Your task to perform on an android device: What's the latest video from Gameranx? Image 0: 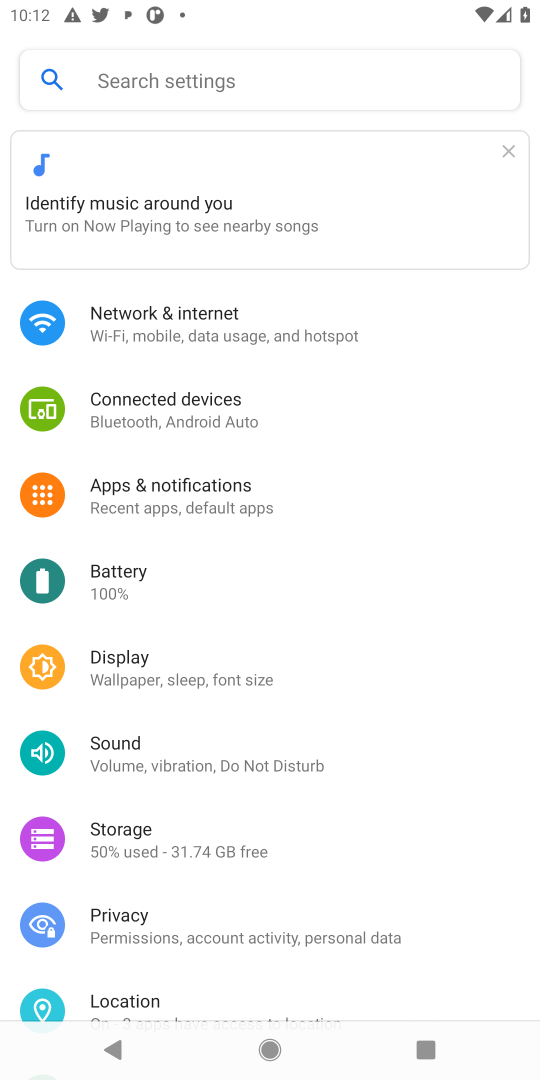
Step 0: press home button
Your task to perform on an android device: What's the latest video from Gameranx? Image 1: 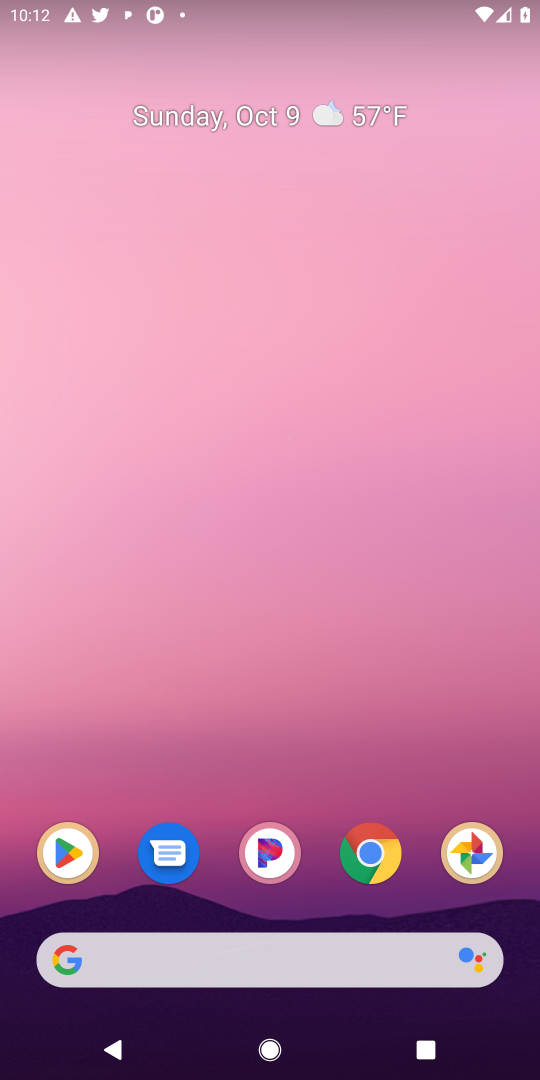
Step 1: click (363, 856)
Your task to perform on an android device: What's the latest video from Gameranx? Image 2: 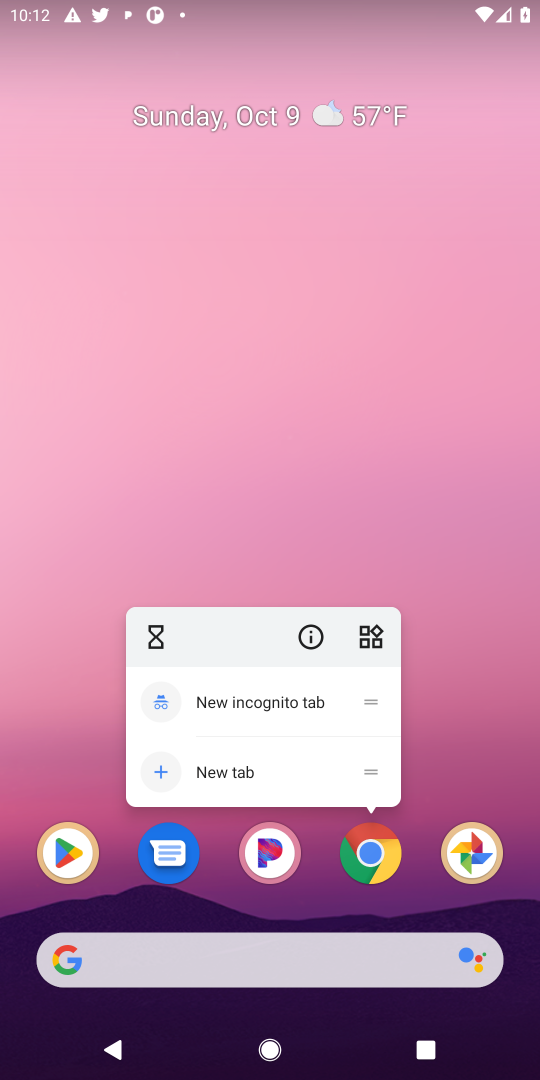
Step 2: click (337, 965)
Your task to perform on an android device: What's the latest video from Gameranx? Image 3: 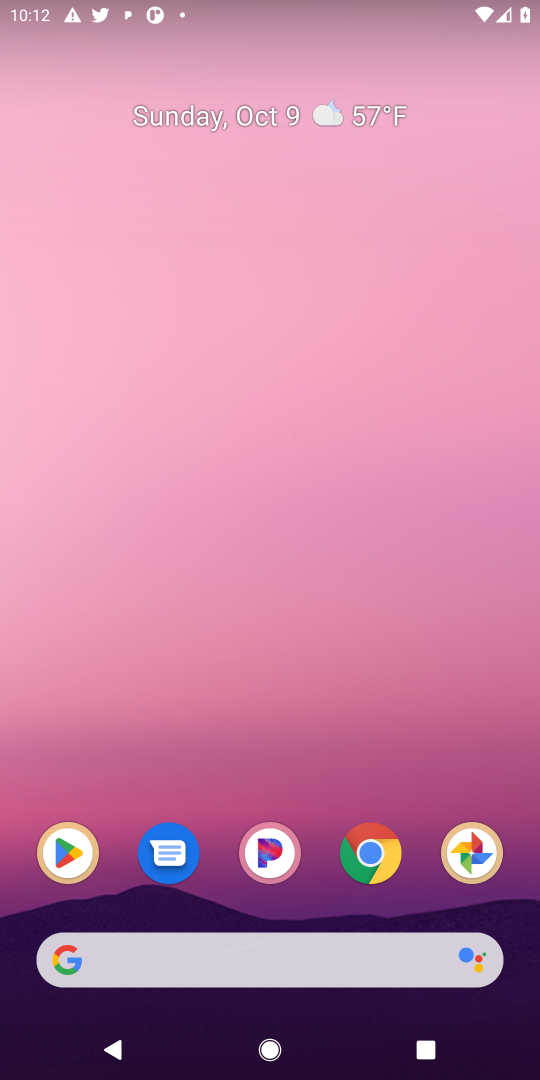
Step 3: click (337, 965)
Your task to perform on an android device: What's the latest video from Gameranx? Image 4: 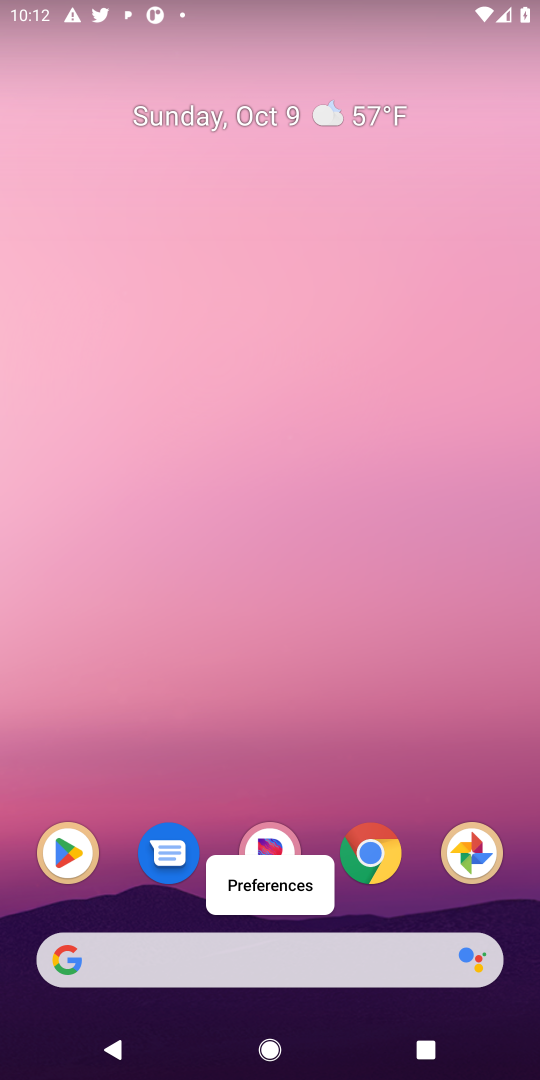
Step 4: click (192, 969)
Your task to perform on an android device: What's the latest video from Gameranx? Image 5: 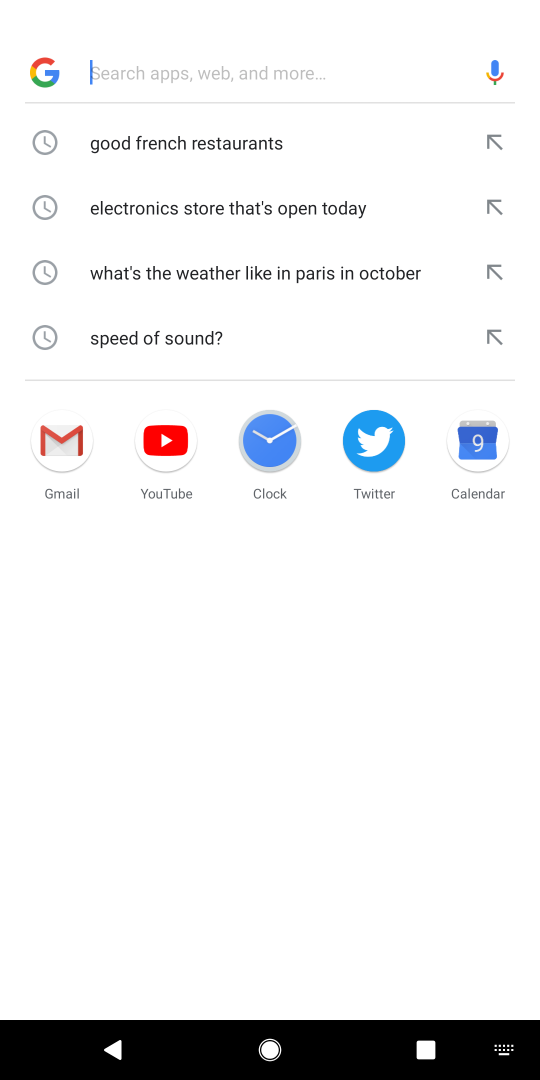
Step 5: type "What's the latest video from Gameranx?"
Your task to perform on an android device: What's the latest video from Gameranx? Image 6: 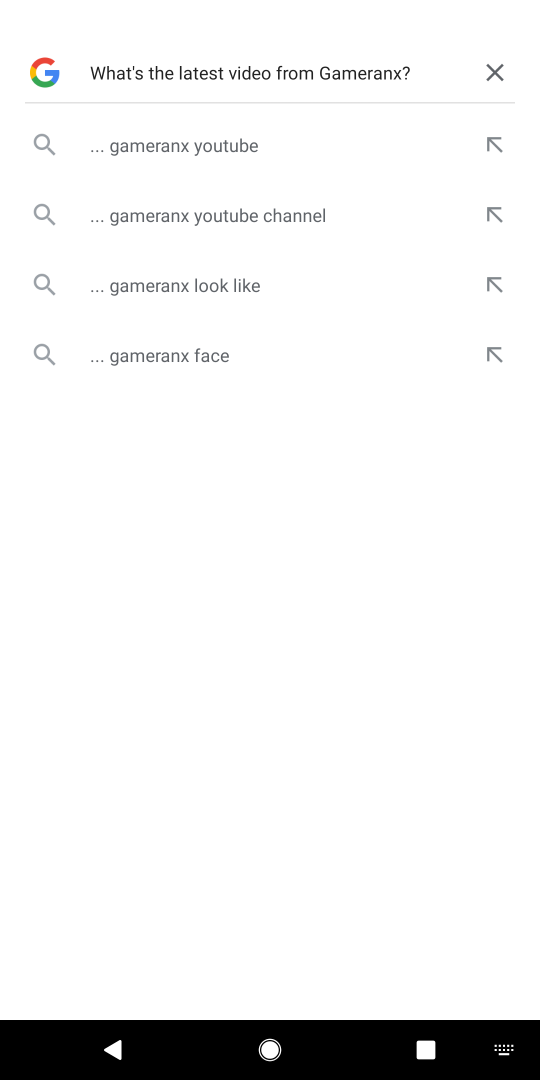
Step 6: type ""
Your task to perform on an android device: What's the latest video from Gameranx? Image 7: 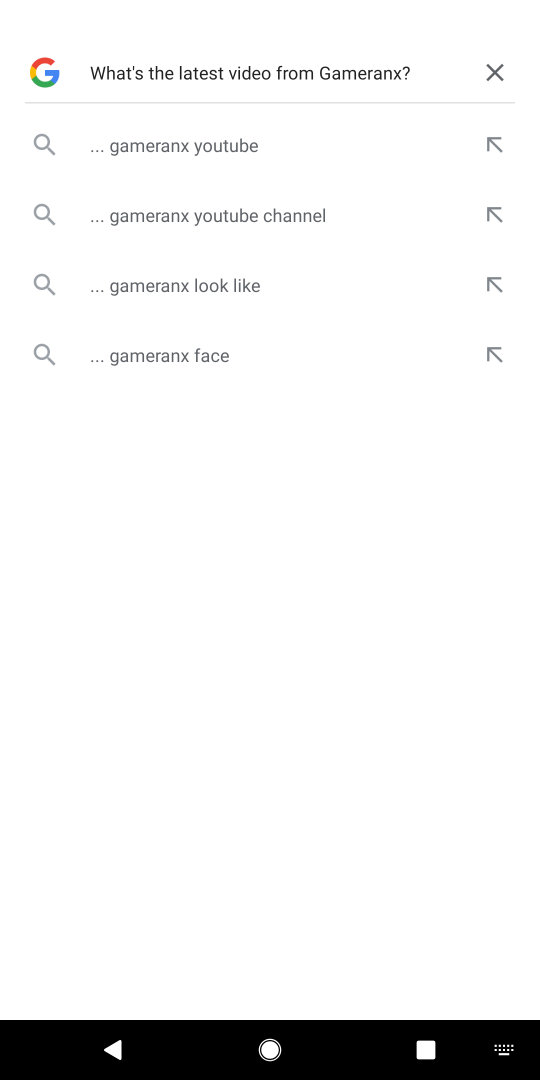
Step 7: press enter
Your task to perform on an android device: What's the latest video from Gameranx? Image 8: 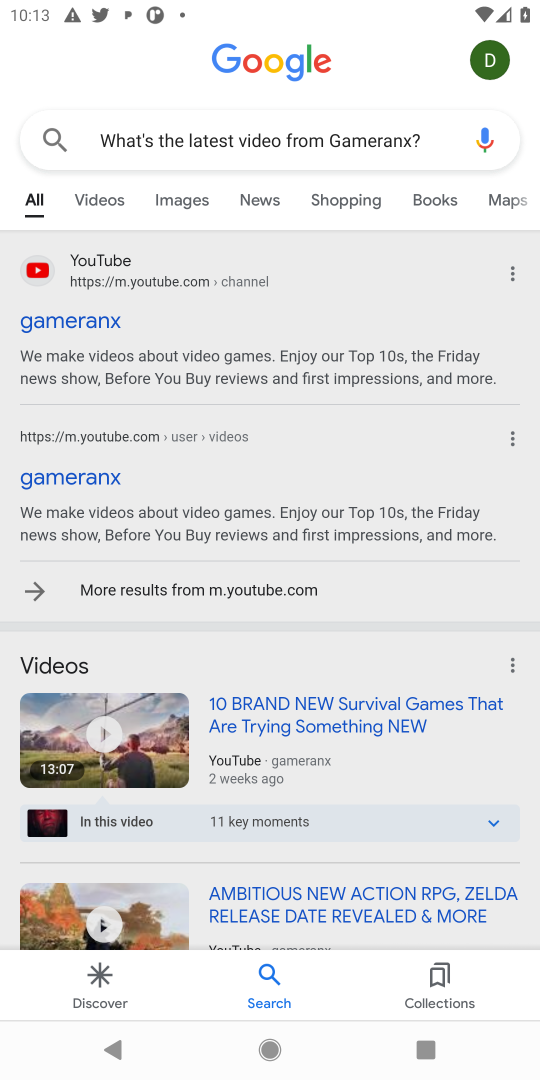
Step 8: click (75, 325)
Your task to perform on an android device: What's the latest video from Gameranx? Image 9: 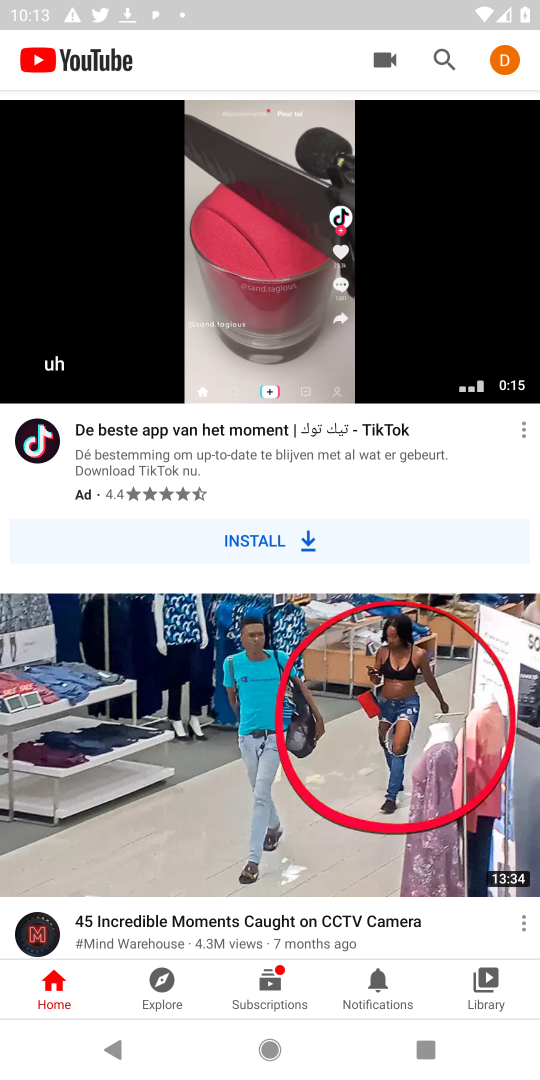
Step 9: drag from (237, 656) to (330, 92)
Your task to perform on an android device: What's the latest video from Gameranx? Image 10: 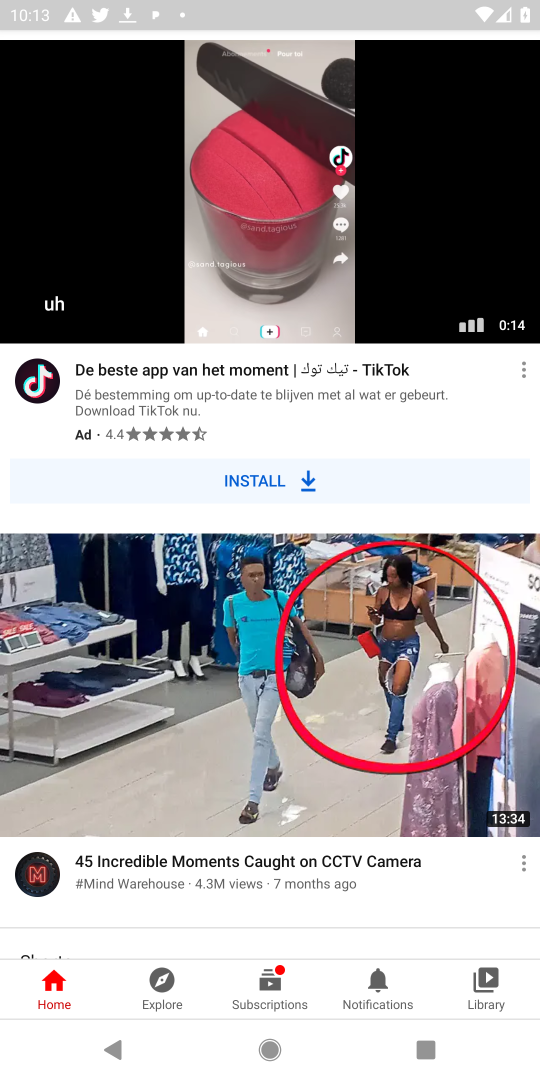
Step 10: drag from (337, 509) to (371, 203)
Your task to perform on an android device: What's the latest video from Gameranx? Image 11: 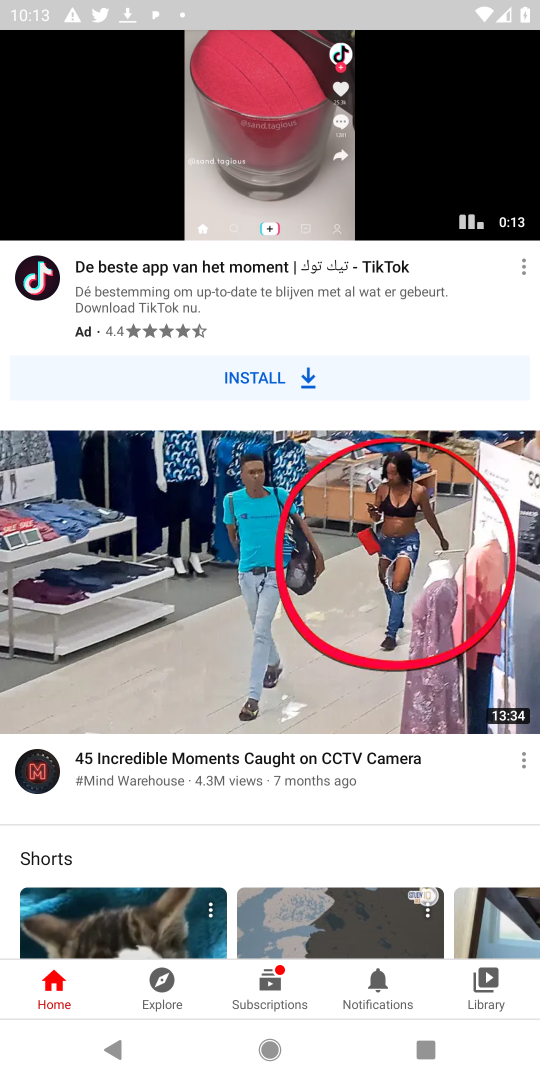
Step 11: drag from (354, 643) to (362, 166)
Your task to perform on an android device: What's the latest video from Gameranx? Image 12: 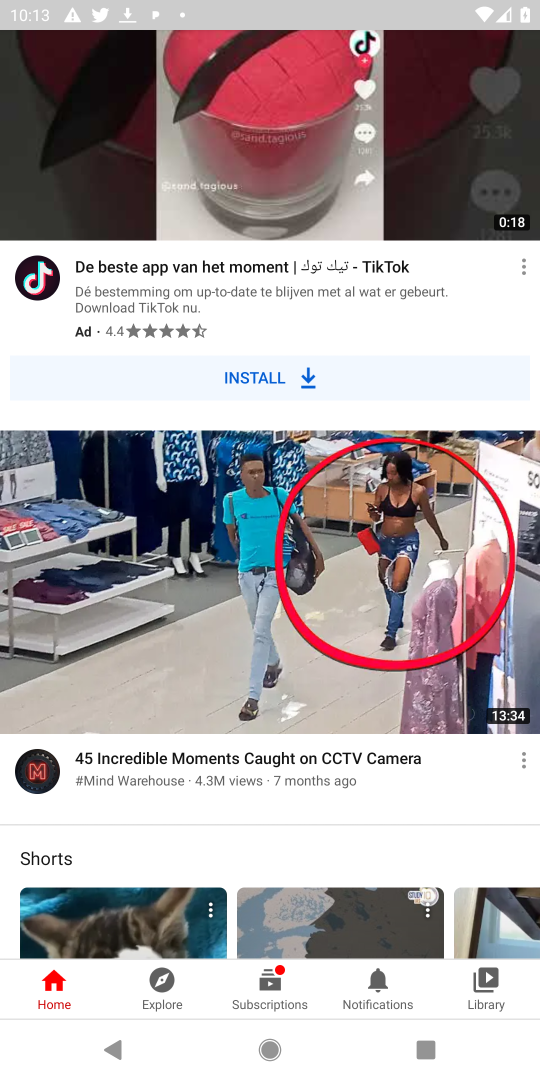
Step 12: drag from (378, 340) to (412, 132)
Your task to perform on an android device: What's the latest video from Gameranx? Image 13: 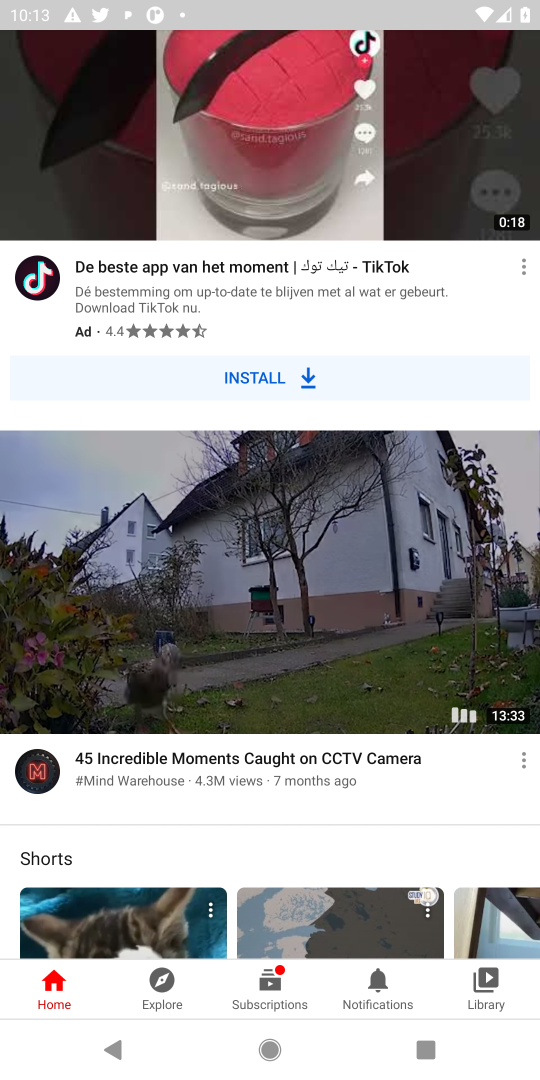
Step 13: press back button
Your task to perform on an android device: What's the latest video from Gameranx? Image 14: 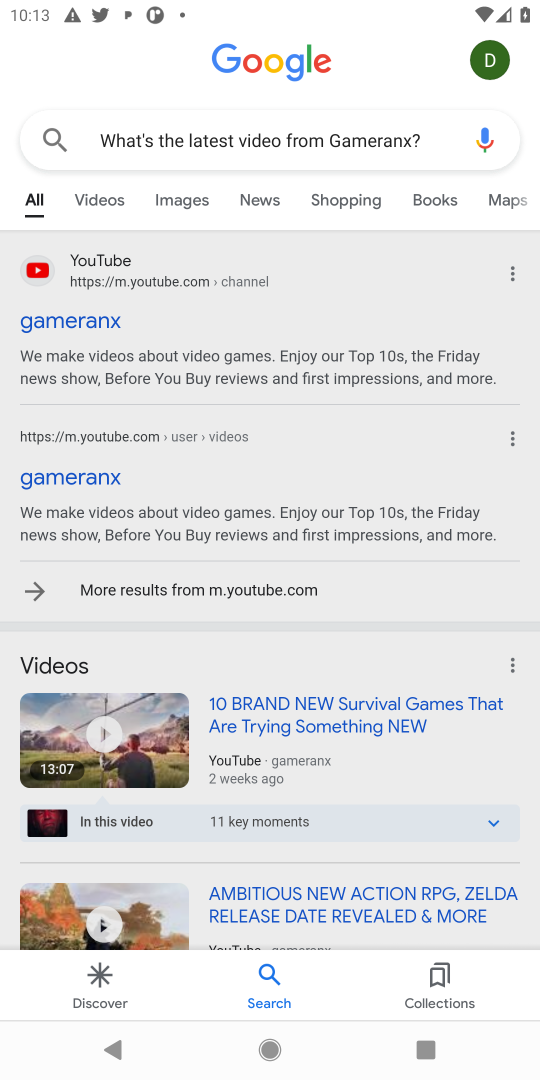
Step 14: click (96, 484)
Your task to perform on an android device: What's the latest video from Gameranx? Image 15: 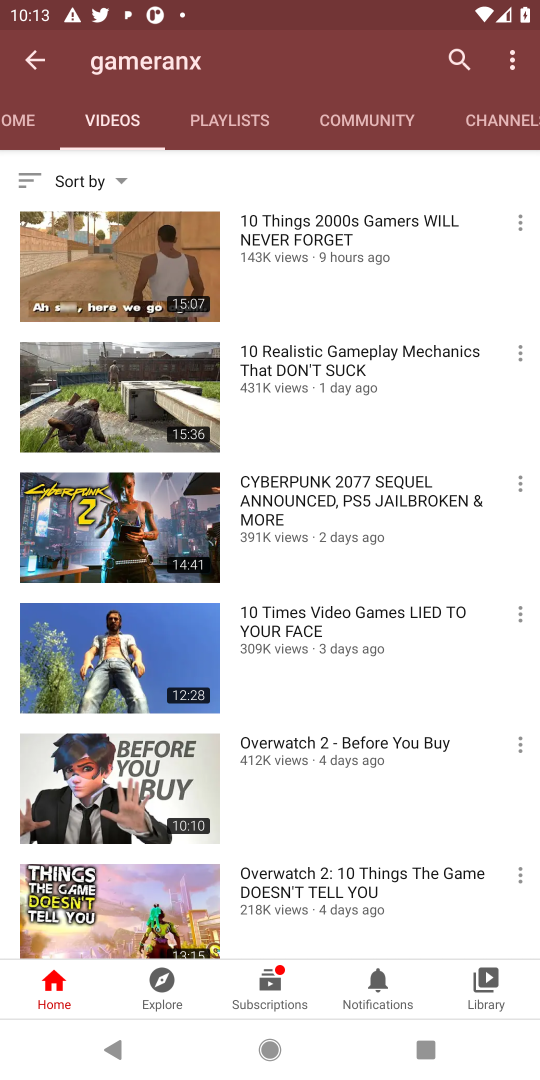
Step 15: click (352, 221)
Your task to perform on an android device: What's the latest video from Gameranx? Image 16: 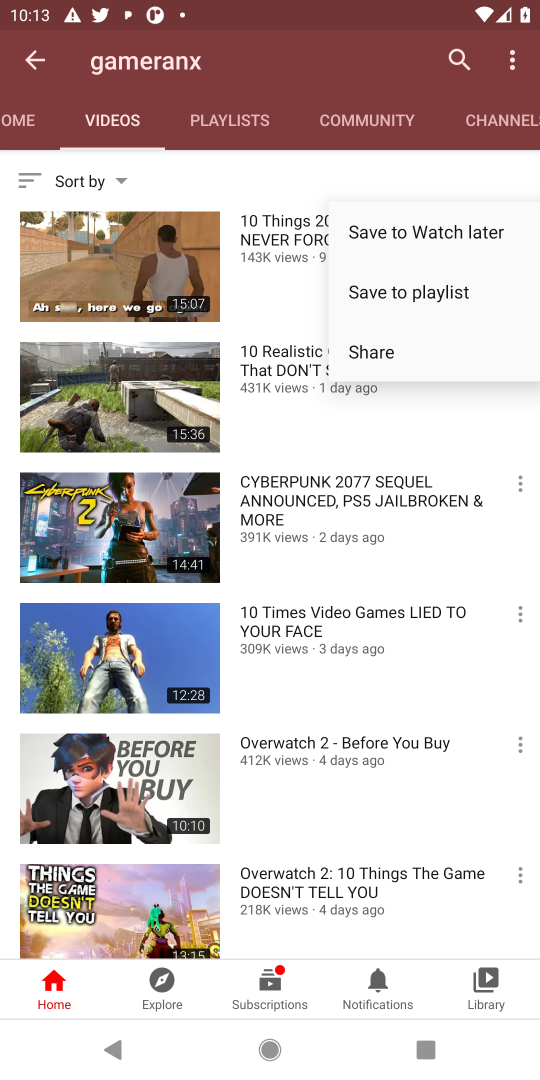
Step 16: click (114, 239)
Your task to perform on an android device: What's the latest video from Gameranx? Image 17: 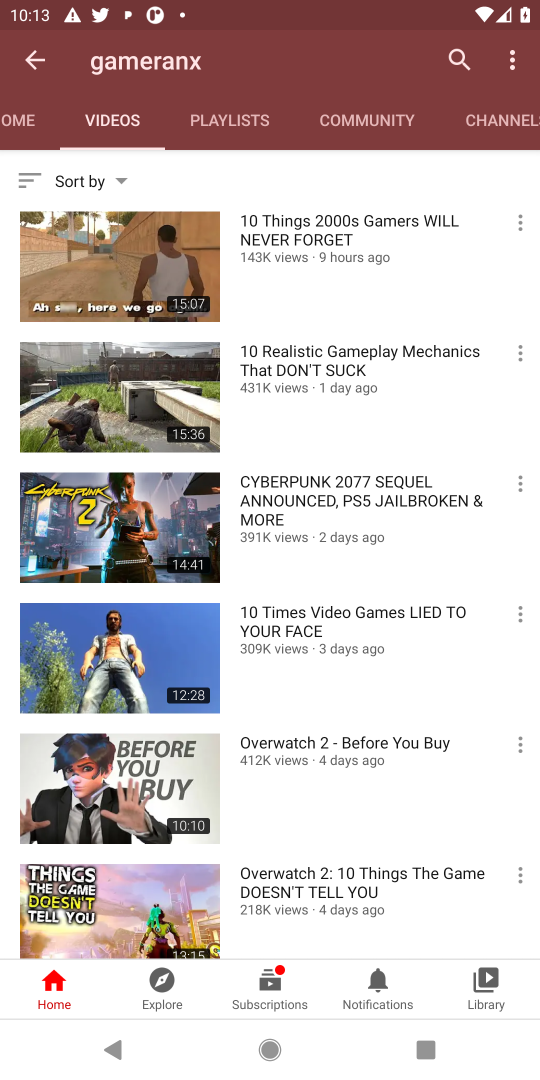
Step 17: click (114, 239)
Your task to perform on an android device: What's the latest video from Gameranx? Image 18: 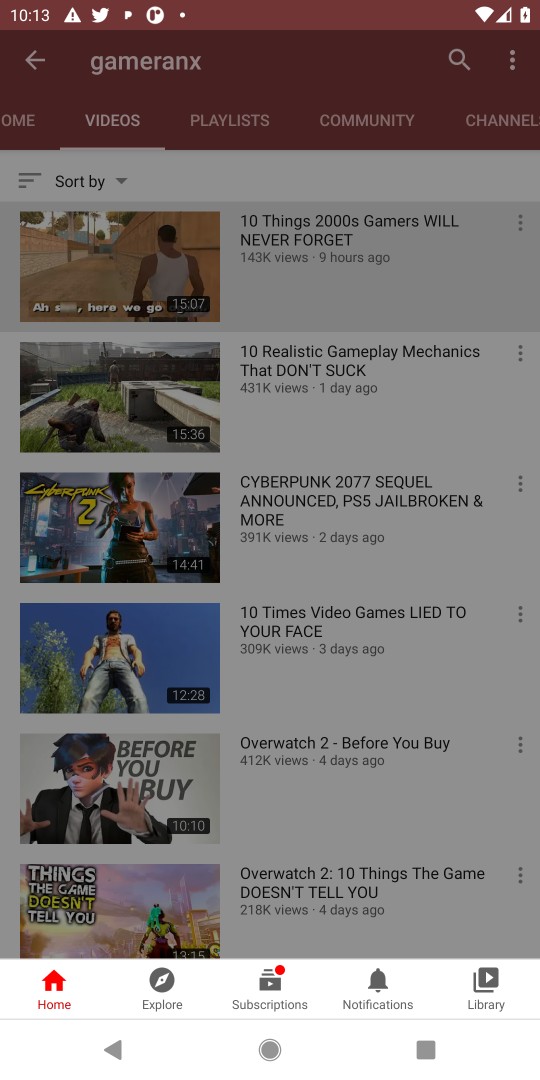
Step 18: click (320, 214)
Your task to perform on an android device: What's the latest video from Gameranx? Image 19: 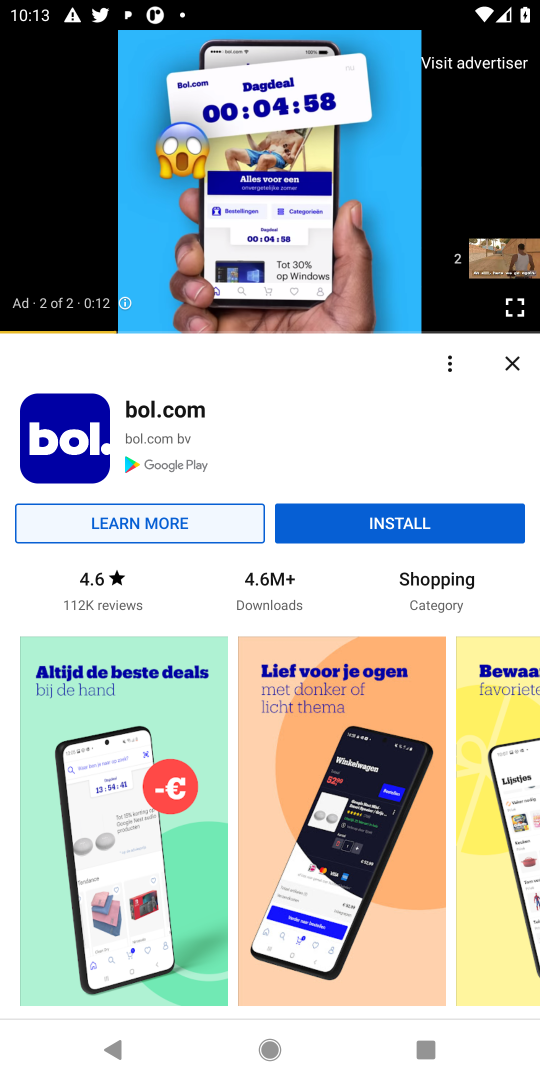
Step 19: click (515, 357)
Your task to perform on an android device: What's the latest video from Gameranx? Image 20: 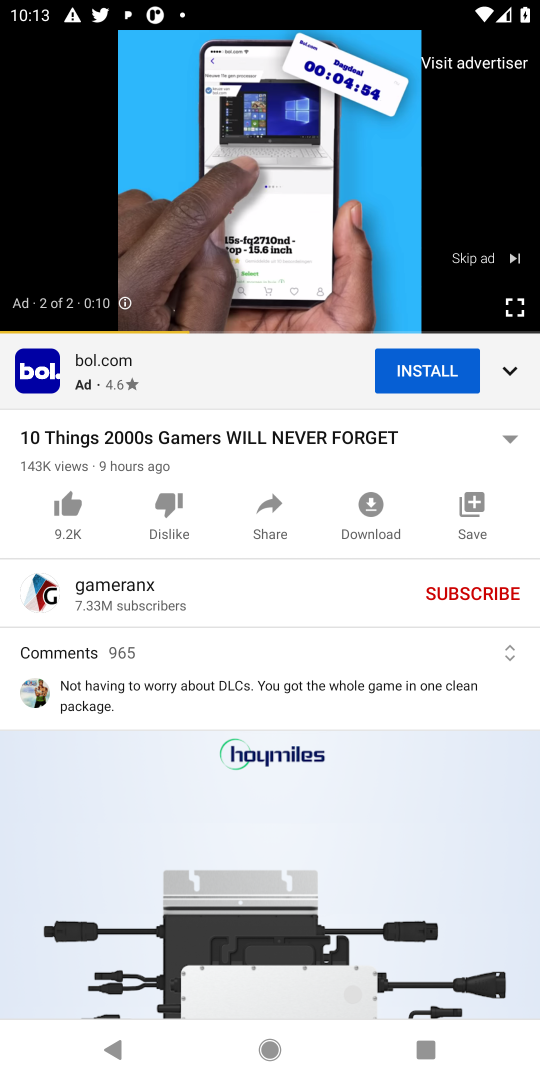
Step 20: drag from (374, 706) to (382, 209)
Your task to perform on an android device: What's the latest video from Gameranx? Image 21: 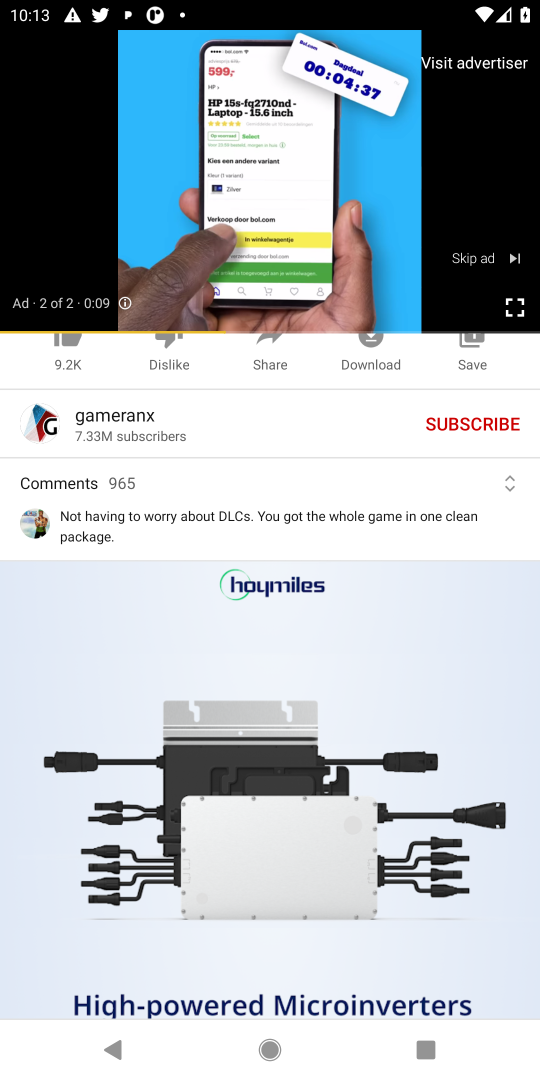
Step 21: drag from (321, 742) to (381, 301)
Your task to perform on an android device: What's the latest video from Gameranx? Image 22: 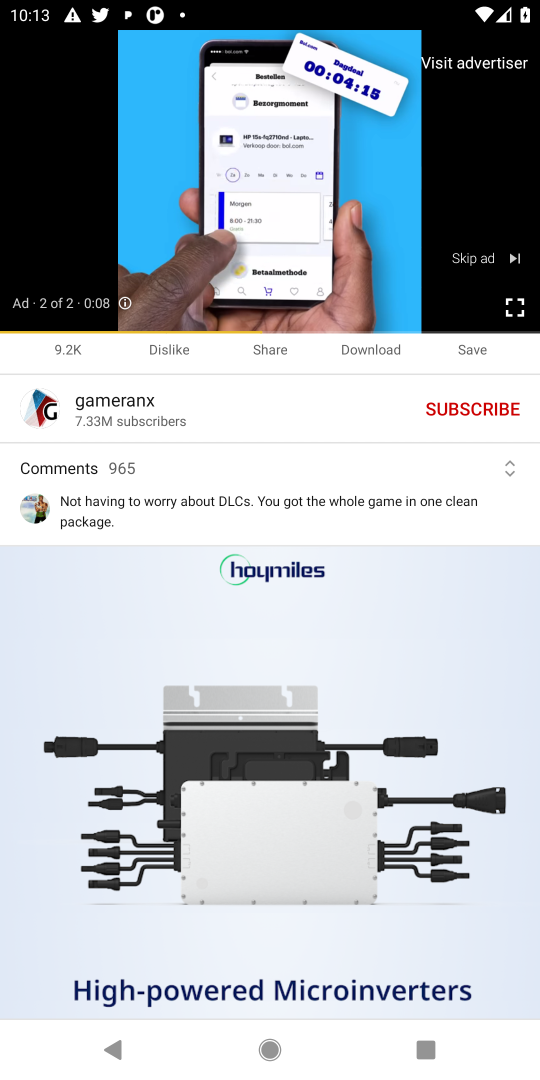
Step 22: click (460, 254)
Your task to perform on an android device: What's the latest video from Gameranx? Image 23: 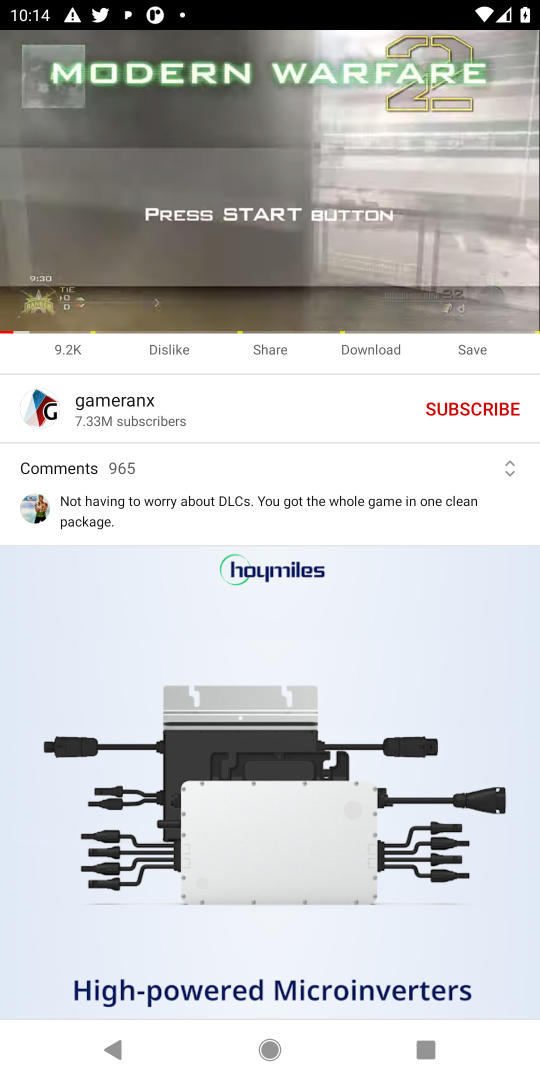
Step 23: drag from (415, 516) to (417, 290)
Your task to perform on an android device: What's the latest video from Gameranx? Image 24: 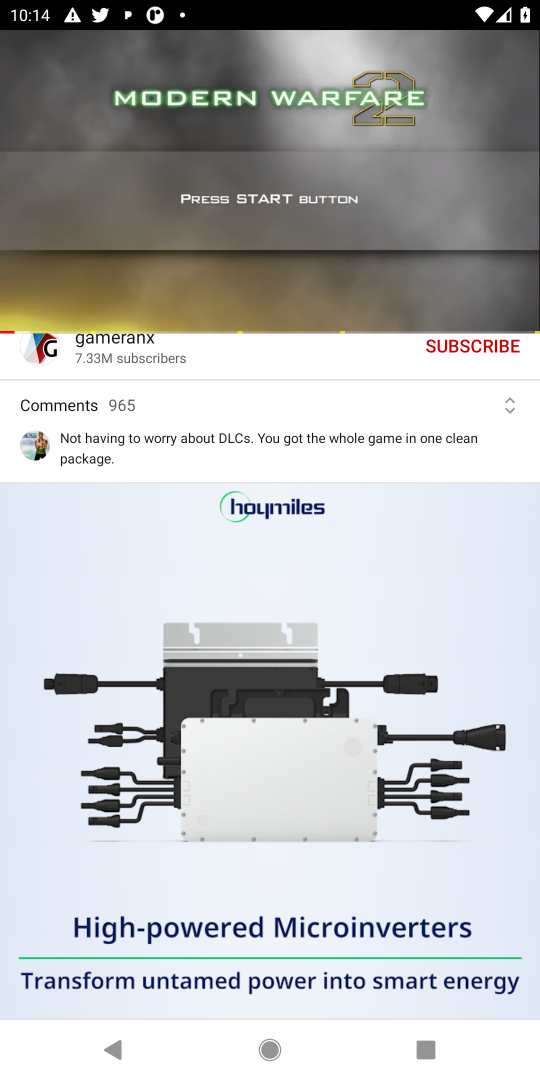
Step 24: drag from (356, 516) to (379, 384)
Your task to perform on an android device: What's the latest video from Gameranx? Image 25: 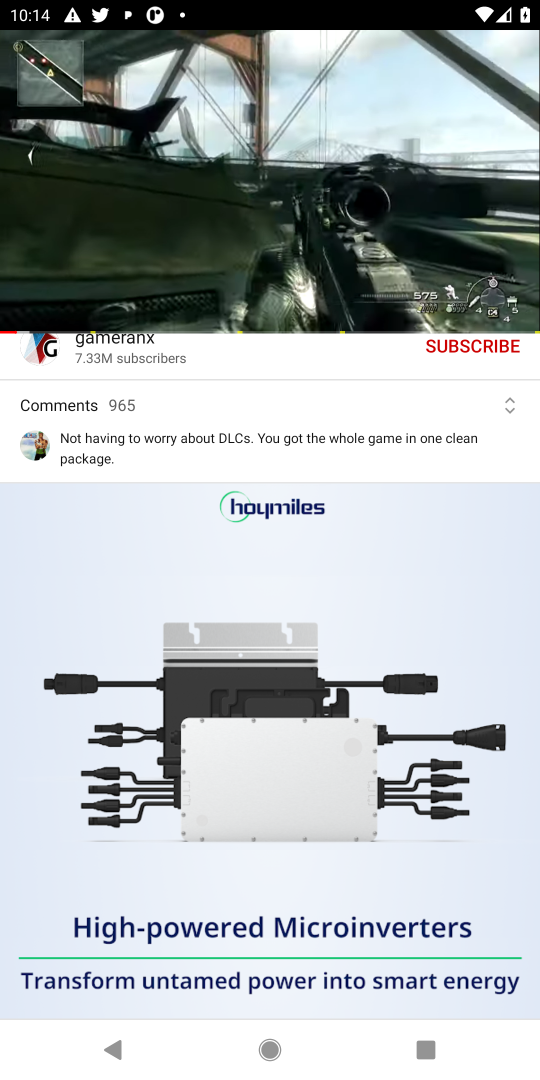
Step 25: drag from (364, 627) to (366, 318)
Your task to perform on an android device: What's the latest video from Gameranx? Image 26: 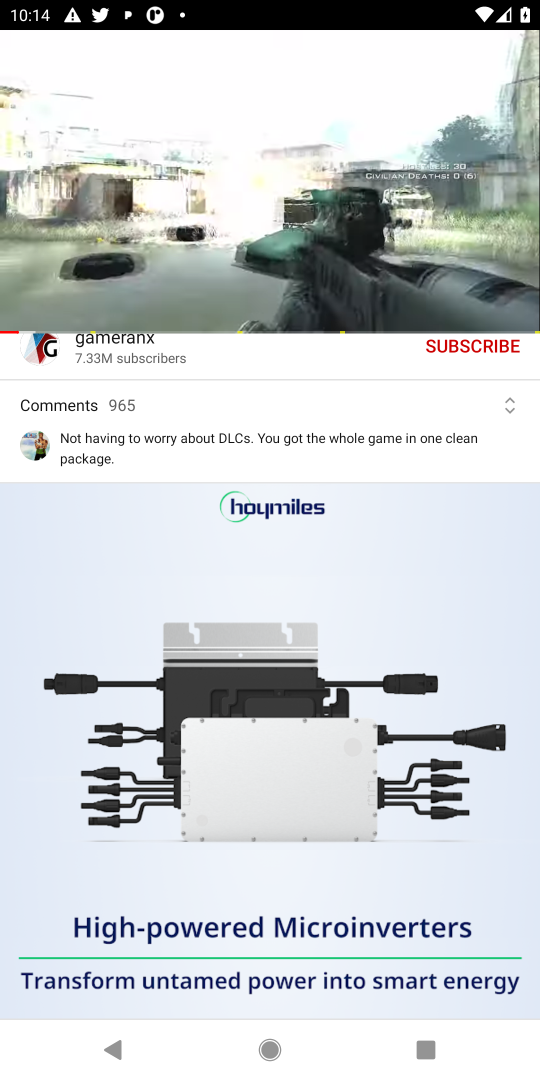
Step 26: drag from (359, 271) to (357, 171)
Your task to perform on an android device: What's the latest video from Gameranx? Image 27: 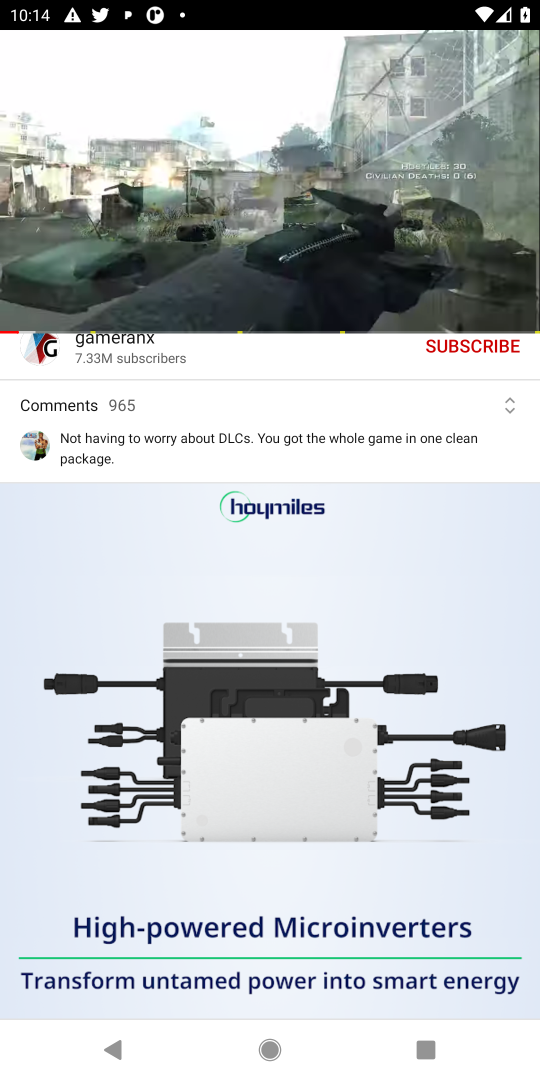
Step 27: drag from (338, 495) to (344, 239)
Your task to perform on an android device: What's the latest video from Gameranx? Image 28: 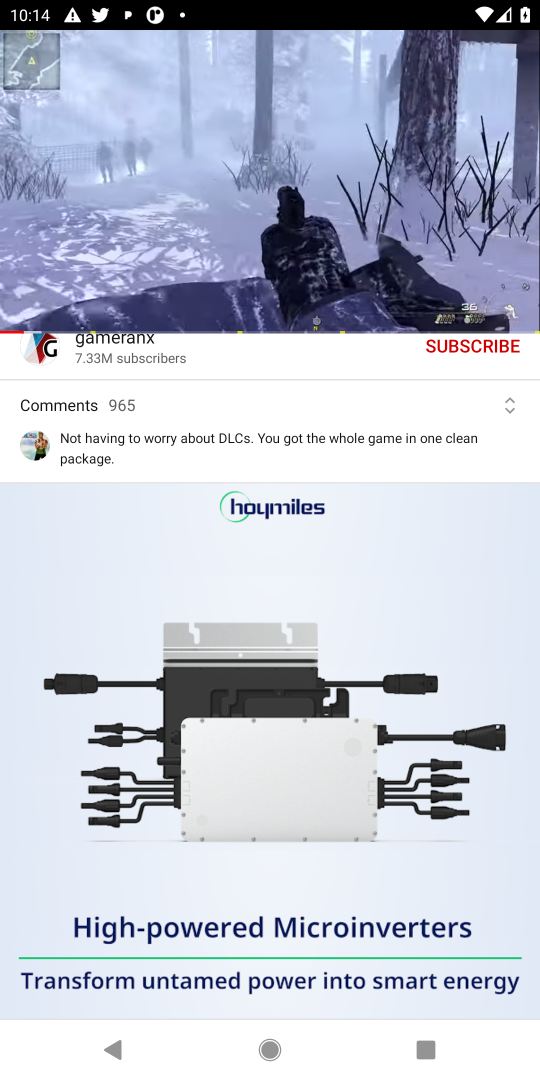
Step 28: click (372, 290)
Your task to perform on an android device: What's the latest video from Gameranx? Image 29: 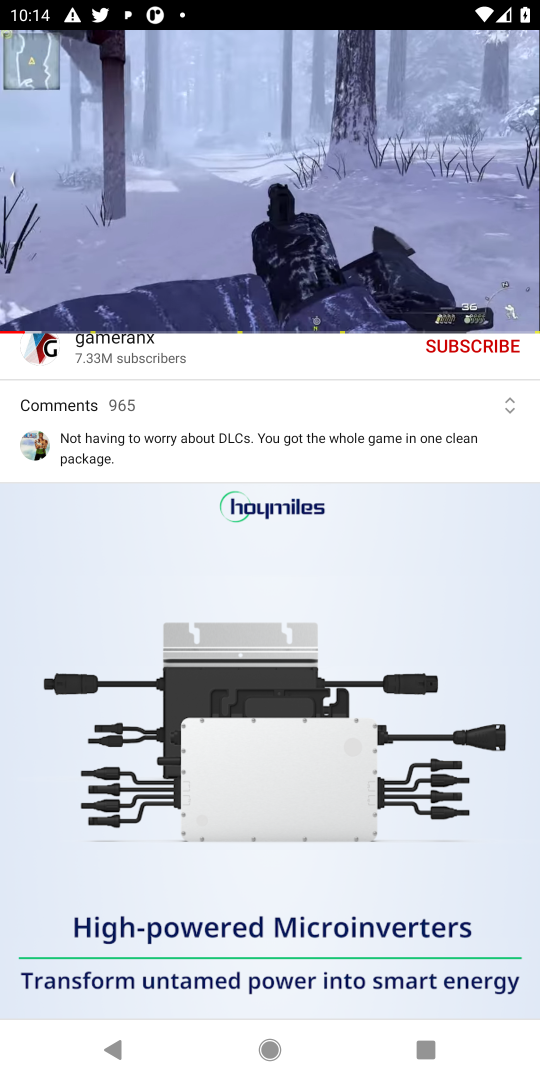
Step 29: press back button
Your task to perform on an android device: What's the latest video from Gameranx? Image 30: 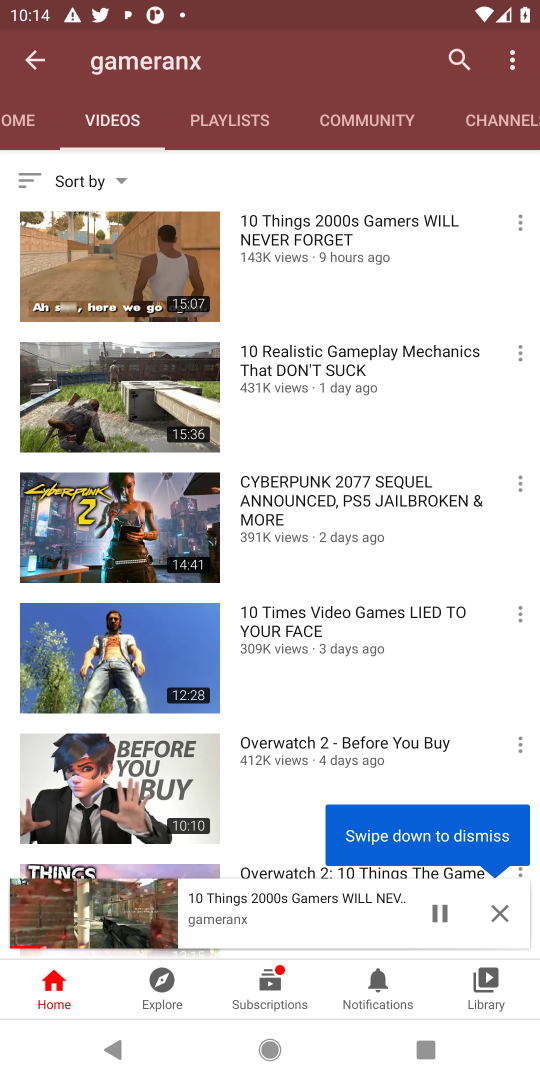
Step 30: press back button
Your task to perform on an android device: What's the latest video from Gameranx? Image 31: 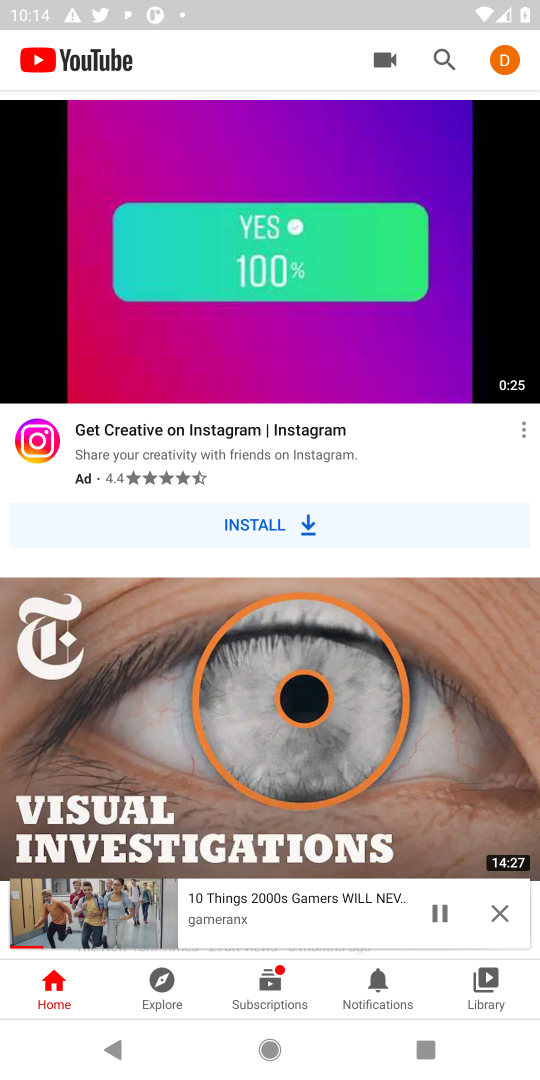
Step 31: press back button
Your task to perform on an android device: What's the latest video from Gameranx? Image 32: 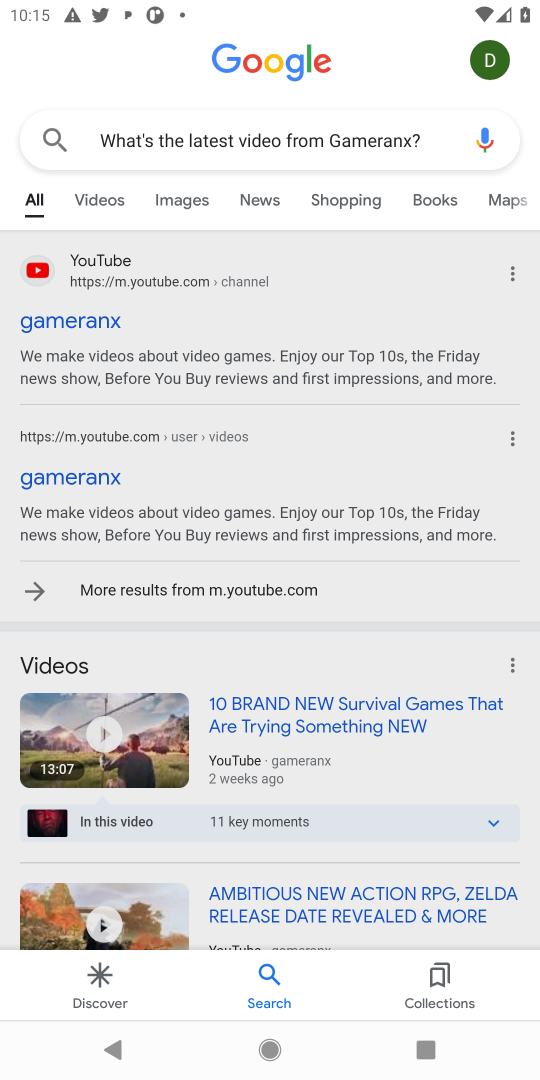
Step 32: drag from (200, 643) to (247, 261)
Your task to perform on an android device: What's the latest video from Gameranx? Image 33: 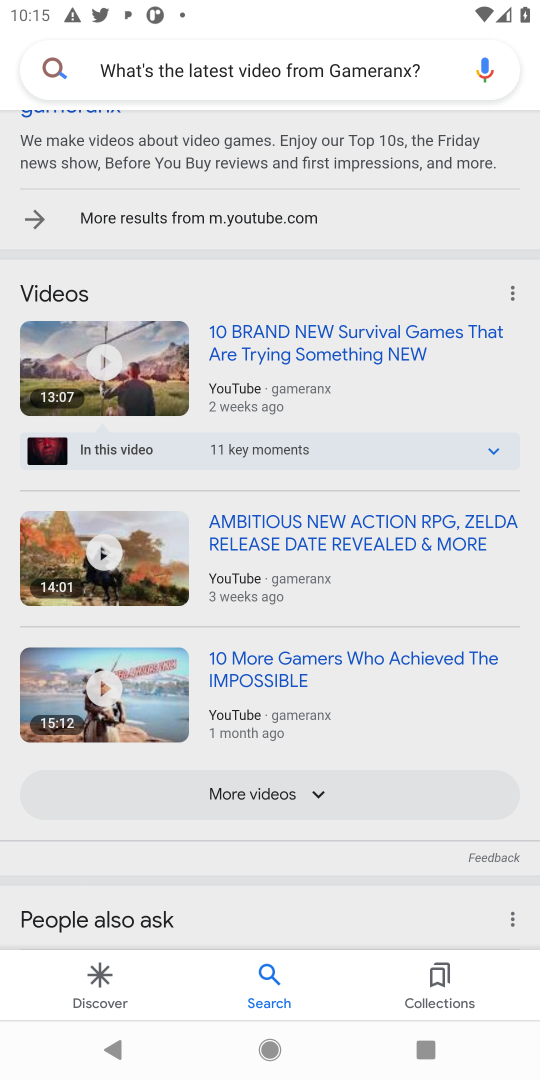
Step 33: drag from (205, 584) to (248, 301)
Your task to perform on an android device: What's the latest video from Gameranx? Image 34: 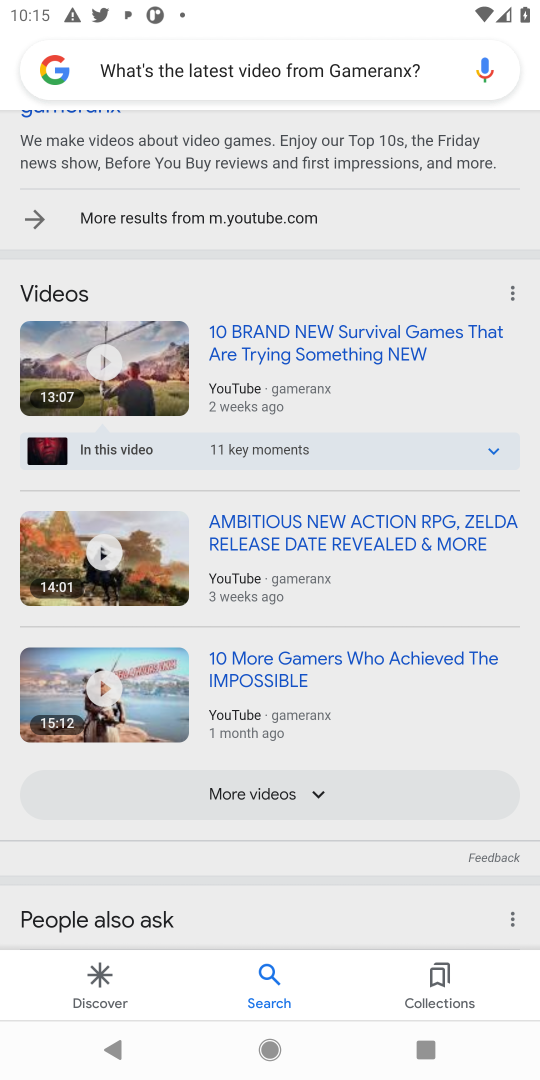
Step 34: drag from (281, 727) to (349, 241)
Your task to perform on an android device: What's the latest video from Gameranx? Image 35: 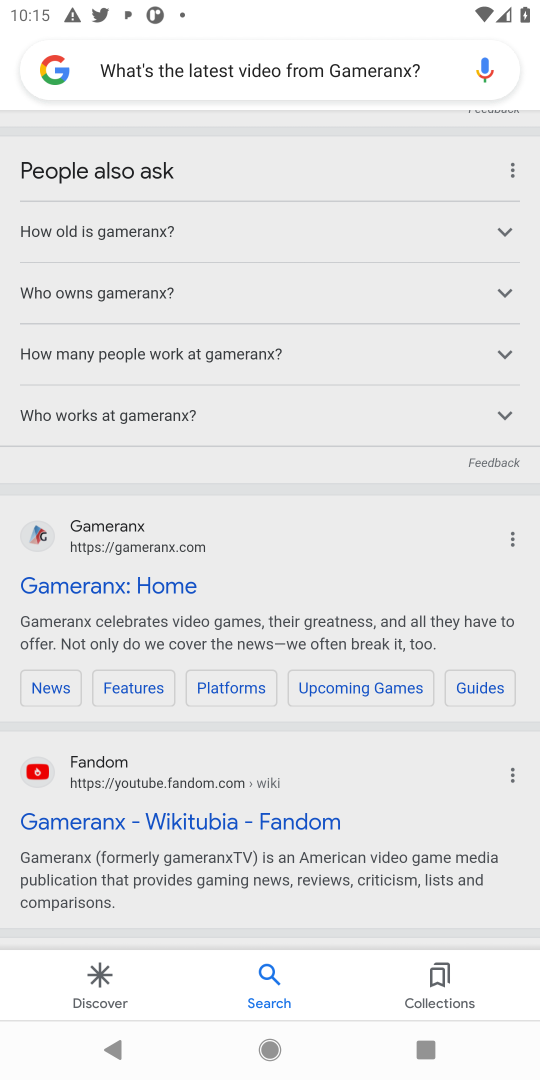
Step 35: drag from (288, 676) to (296, 348)
Your task to perform on an android device: What's the latest video from Gameranx? Image 36: 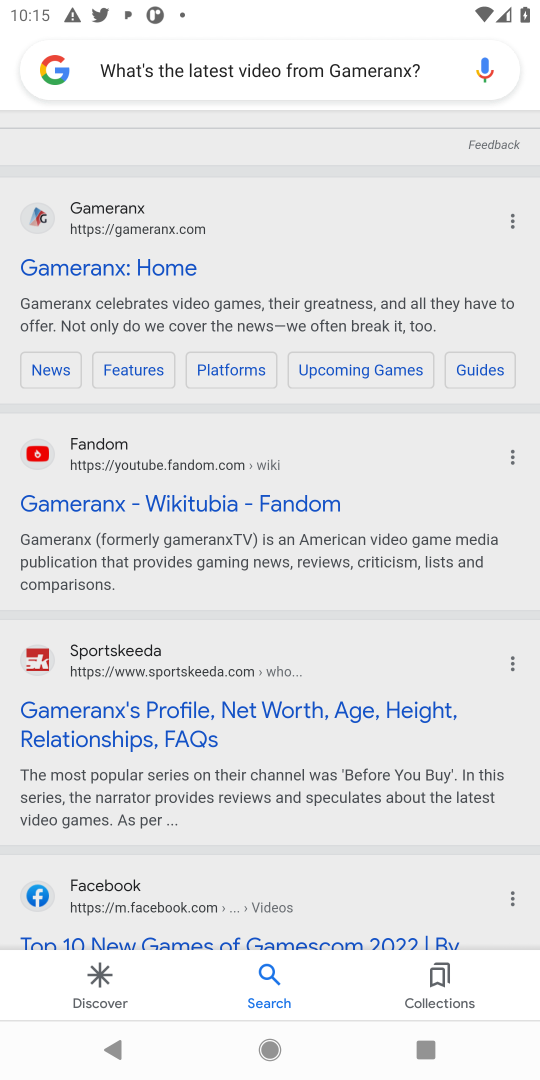
Step 36: drag from (292, 580) to (326, 423)
Your task to perform on an android device: What's the latest video from Gameranx? Image 37: 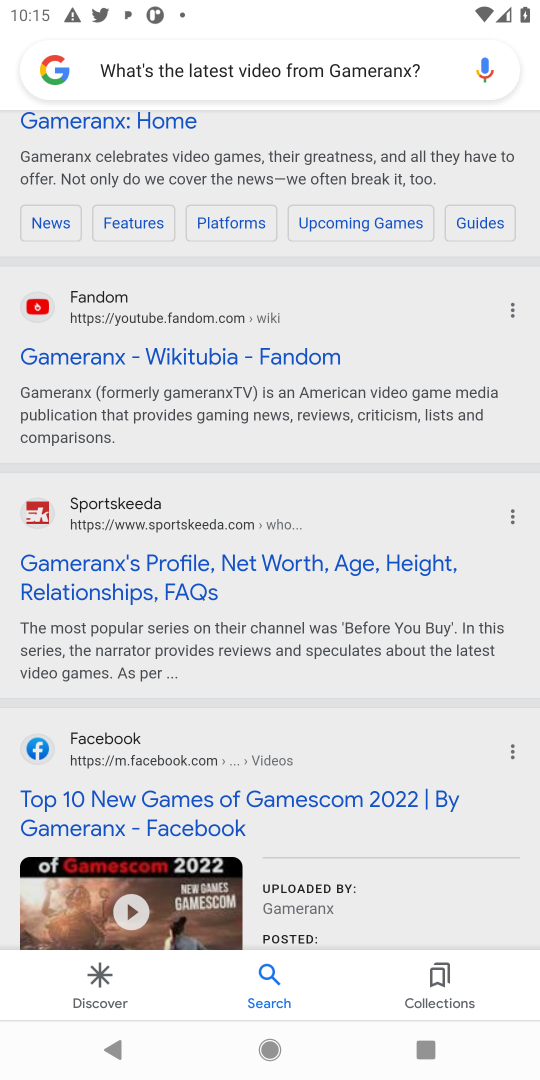
Step 37: click (377, 410)
Your task to perform on an android device: What's the latest video from Gameranx? Image 38: 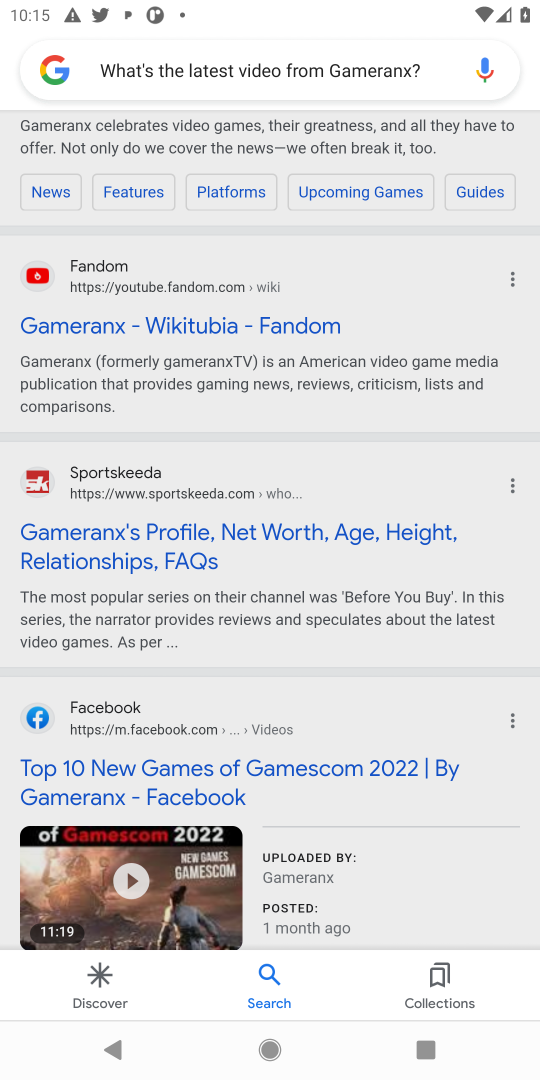
Step 38: task complete